Your task to perform on an android device: What's the weather going to be tomorrow? Image 0: 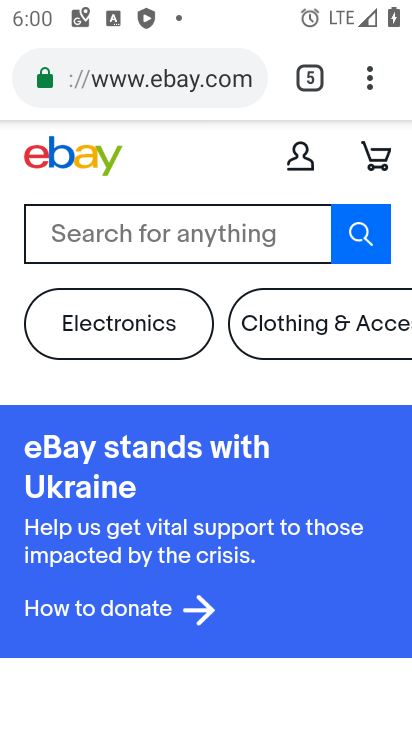
Step 0: press home button
Your task to perform on an android device: What's the weather going to be tomorrow? Image 1: 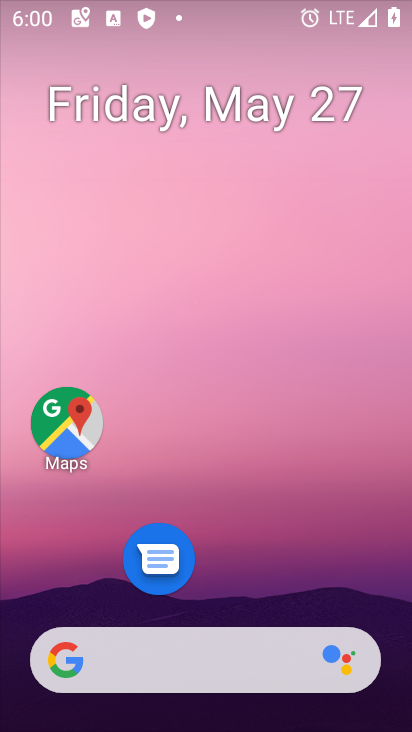
Step 1: drag from (290, 645) to (410, 400)
Your task to perform on an android device: What's the weather going to be tomorrow? Image 2: 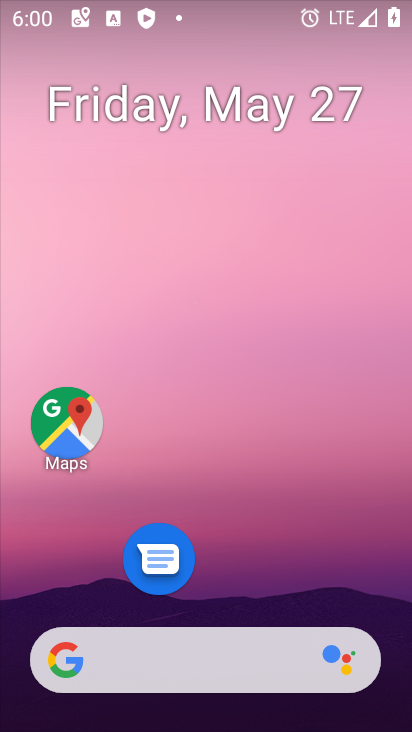
Step 2: drag from (95, 291) to (378, 396)
Your task to perform on an android device: What's the weather going to be tomorrow? Image 3: 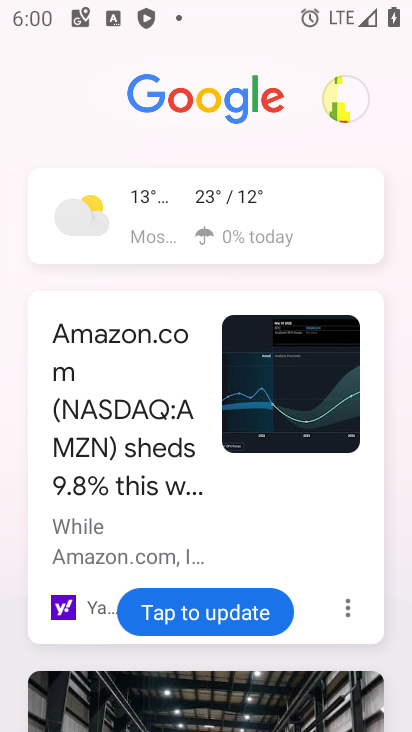
Step 3: click (175, 239)
Your task to perform on an android device: What's the weather going to be tomorrow? Image 4: 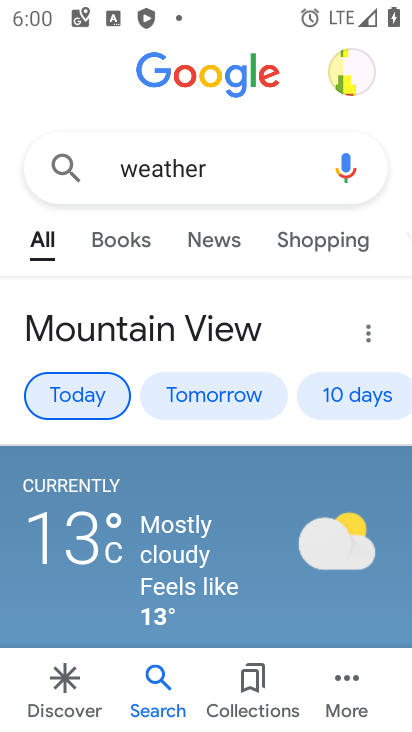
Step 4: click (358, 402)
Your task to perform on an android device: What's the weather going to be tomorrow? Image 5: 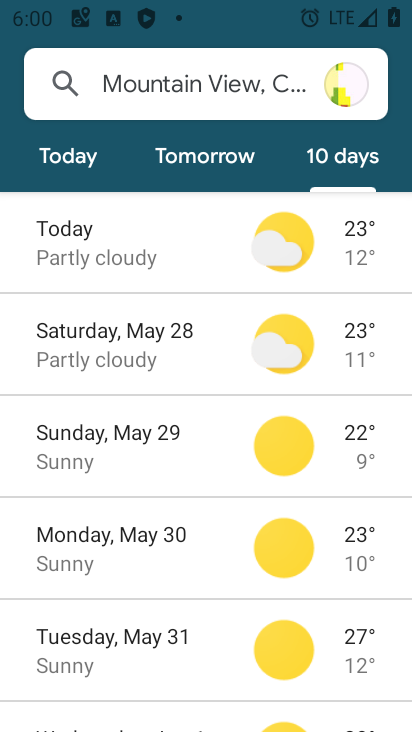
Step 5: task complete